Your task to perform on an android device: Search for panasonic triple a on amazon, select the first entry, and add it to the cart. Image 0: 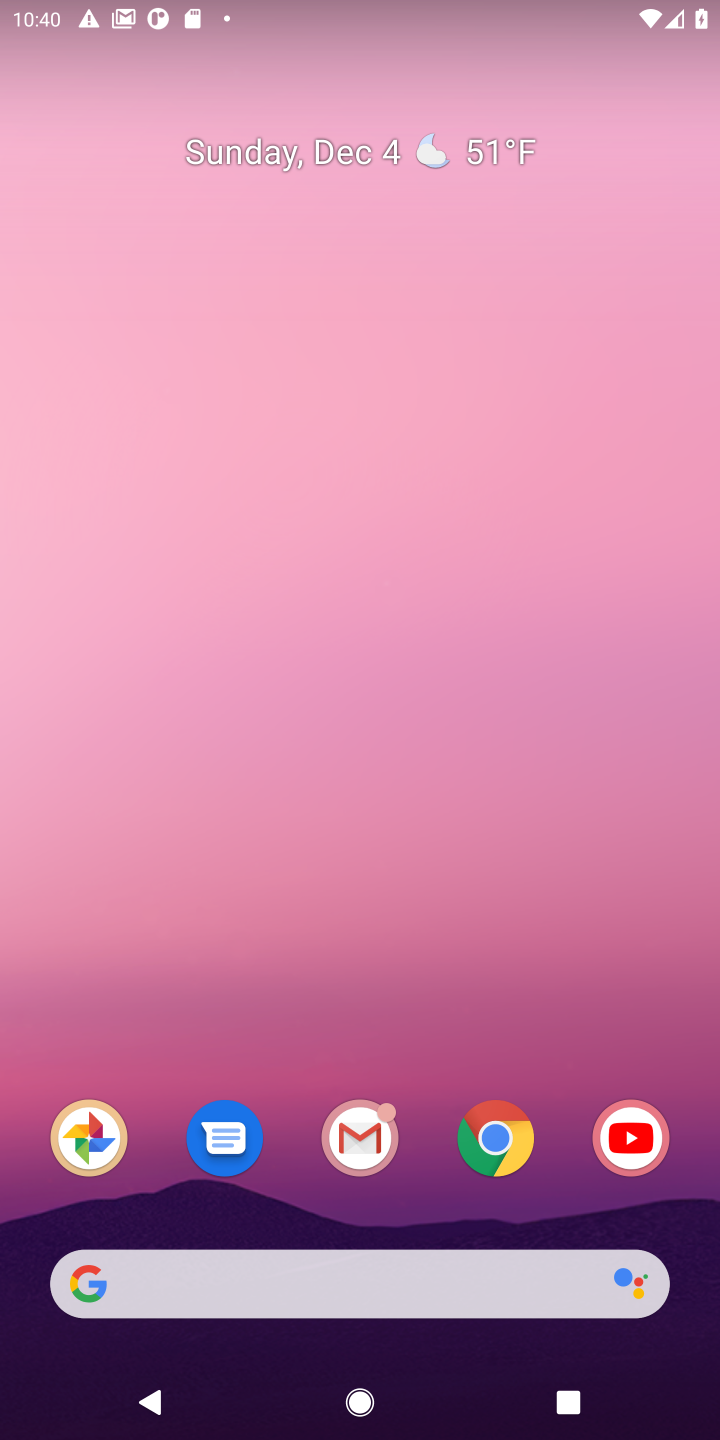
Step 0: click (482, 1127)
Your task to perform on an android device: Search for panasonic triple a on amazon, select the first entry, and add it to the cart. Image 1: 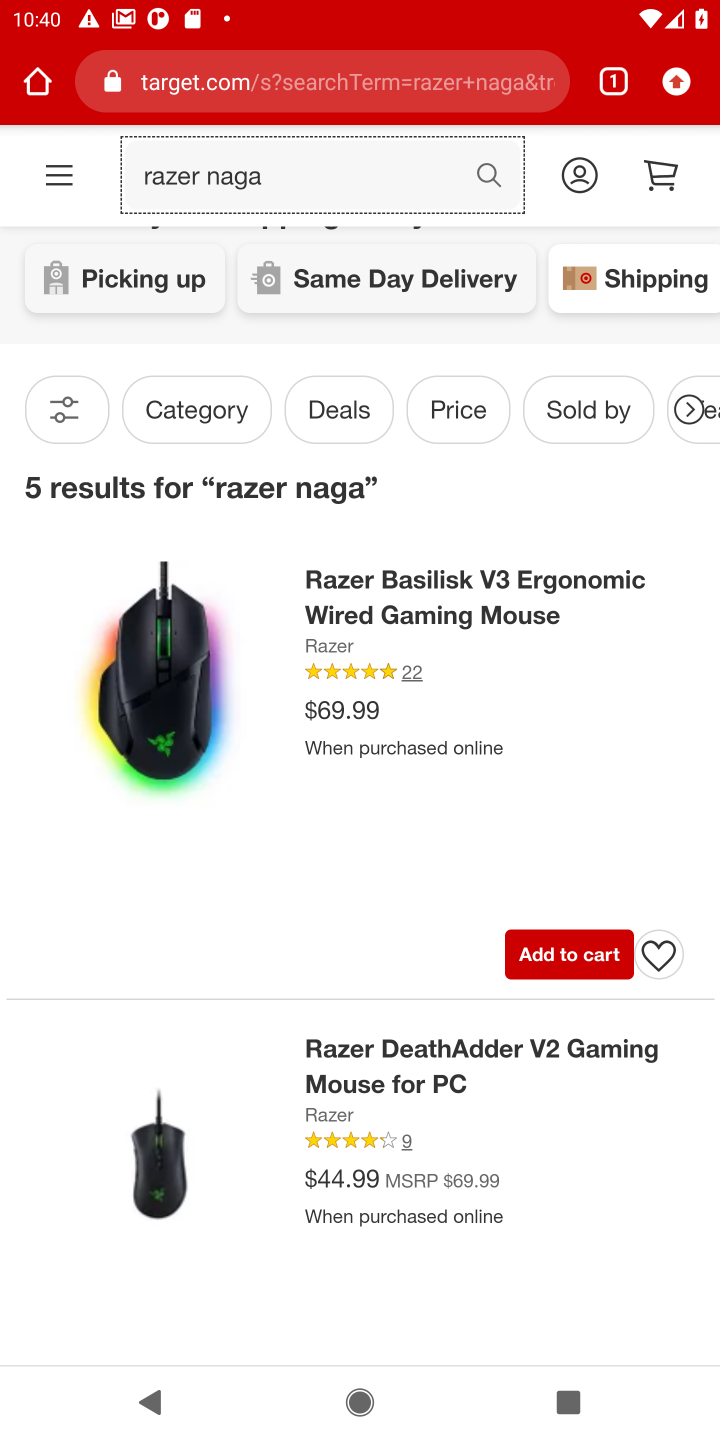
Step 1: click (377, 81)
Your task to perform on an android device: Search for panasonic triple a on amazon, select the first entry, and add it to the cart. Image 2: 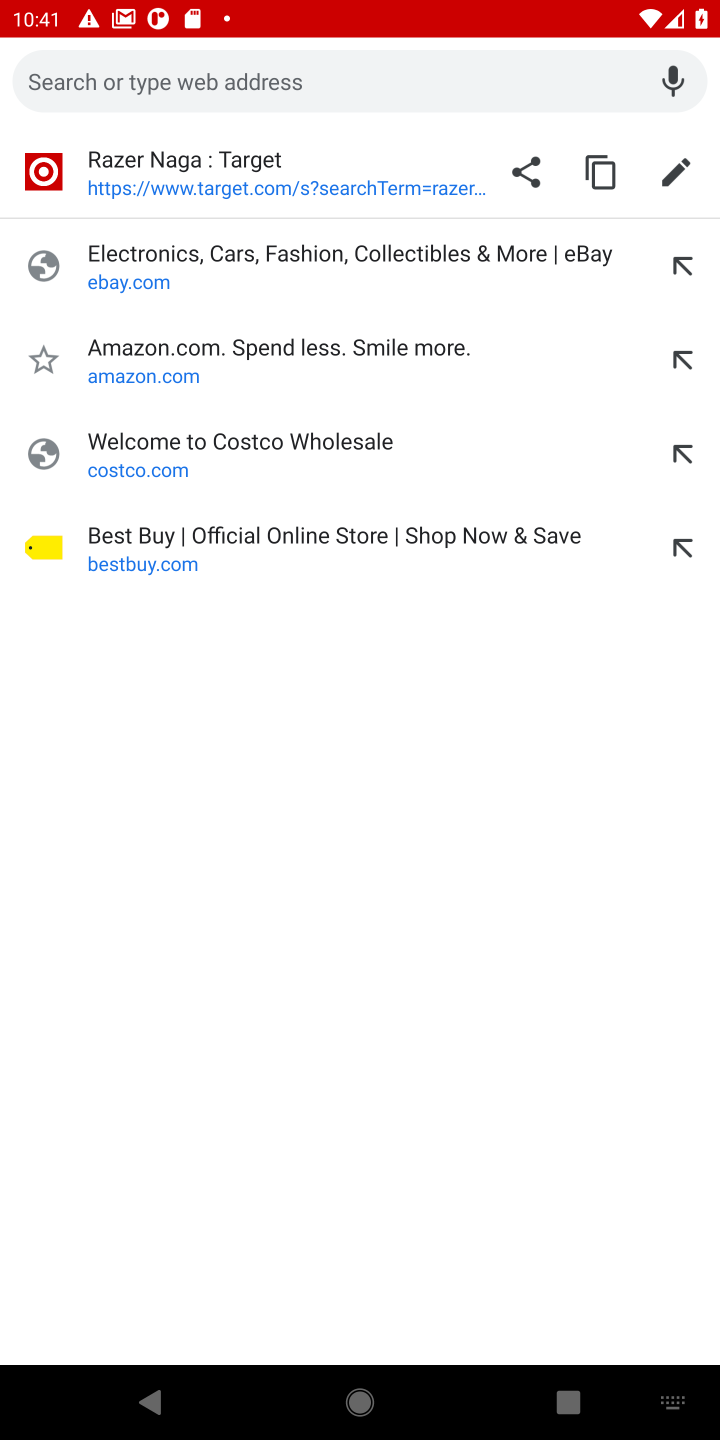
Step 2: click (188, 347)
Your task to perform on an android device: Search for panasonic triple a on amazon, select the first entry, and add it to the cart. Image 3: 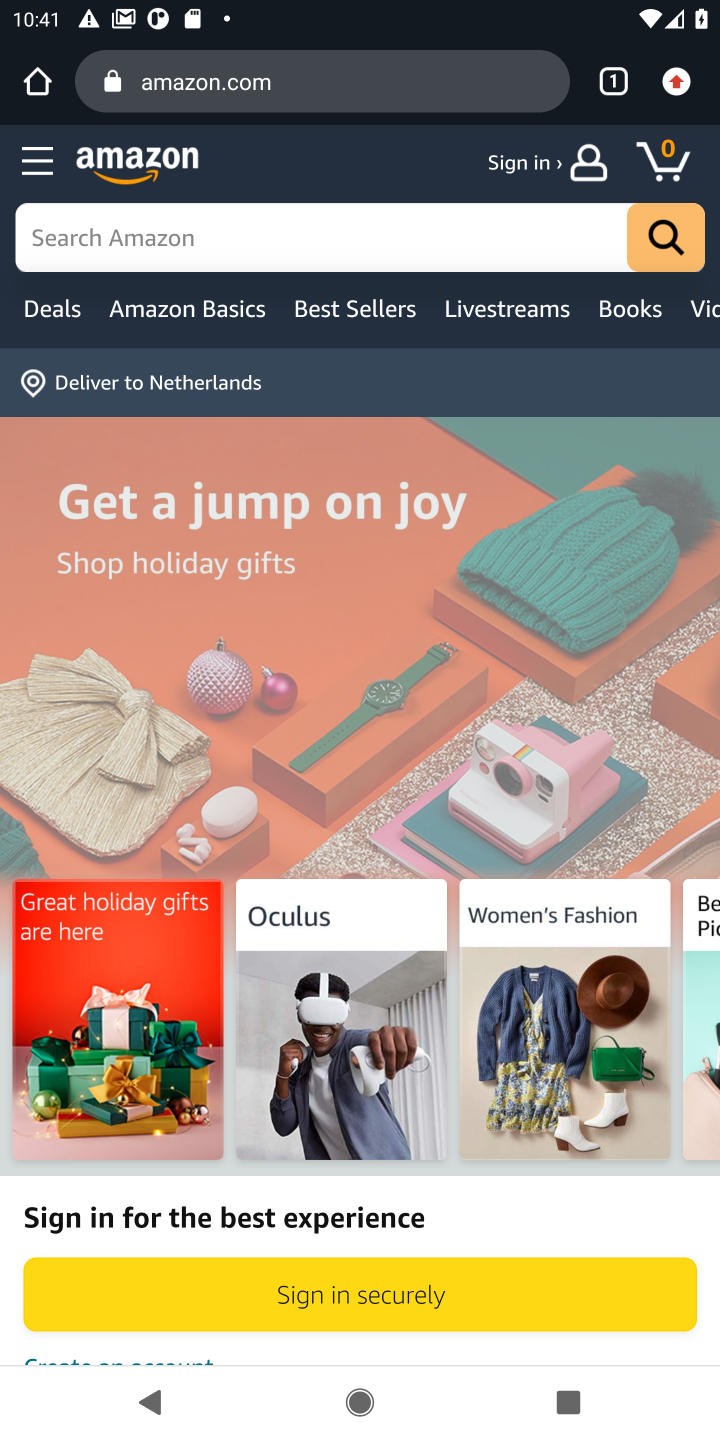
Step 3: click (409, 230)
Your task to perform on an android device: Search for panasonic triple a on amazon, select the first entry, and add it to the cart. Image 4: 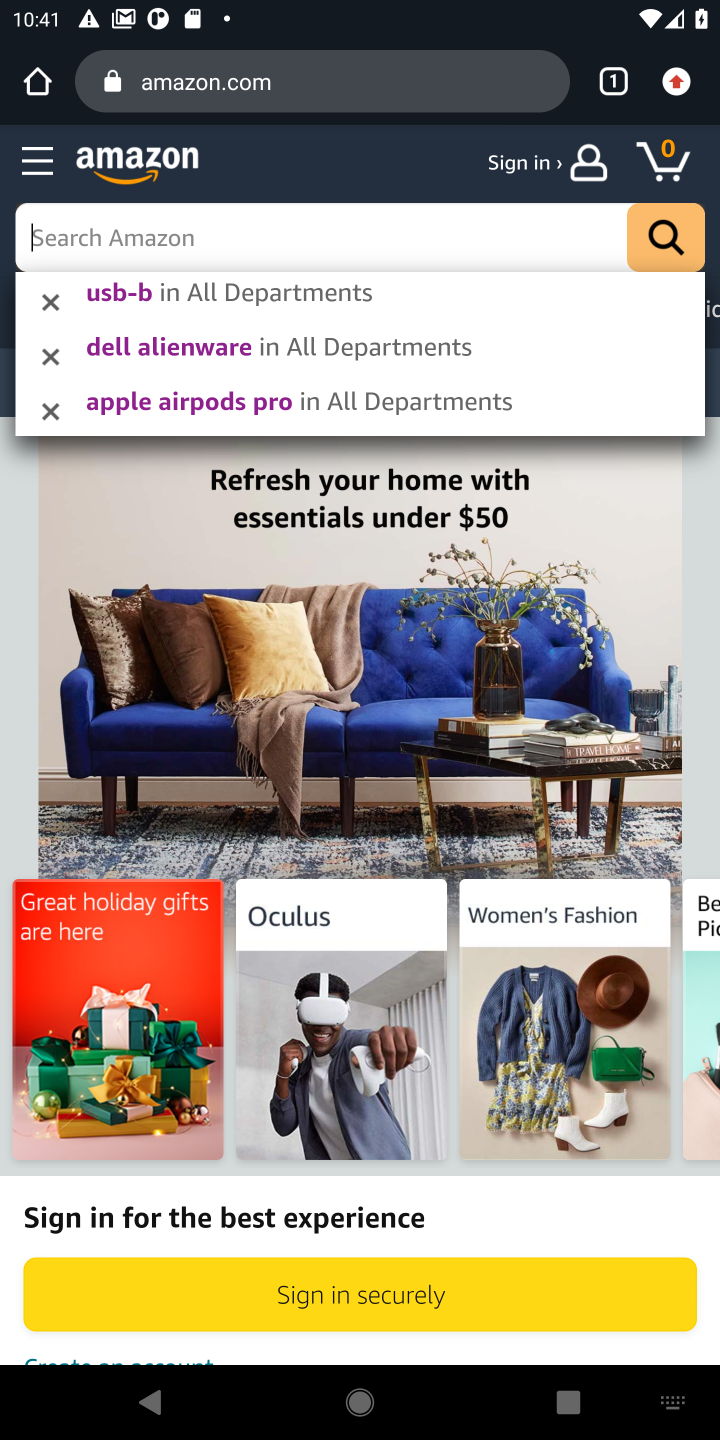
Step 4: type "panasonic triple a"
Your task to perform on an android device: Search for panasonic triple a on amazon, select the first entry, and add it to the cart. Image 5: 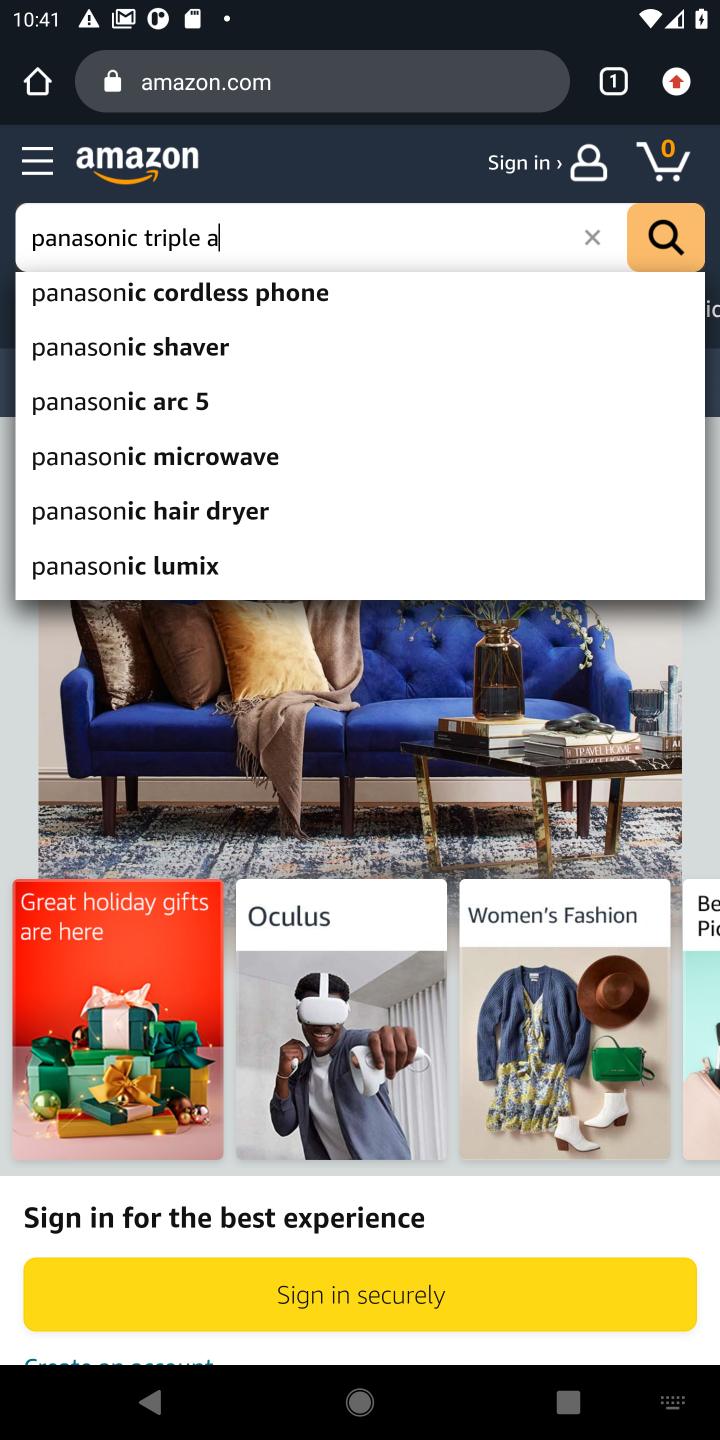
Step 5: press enter
Your task to perform on an android device: Search for panasonic triple a on amazon, select the first entry, and add it to the cart. Image 6: 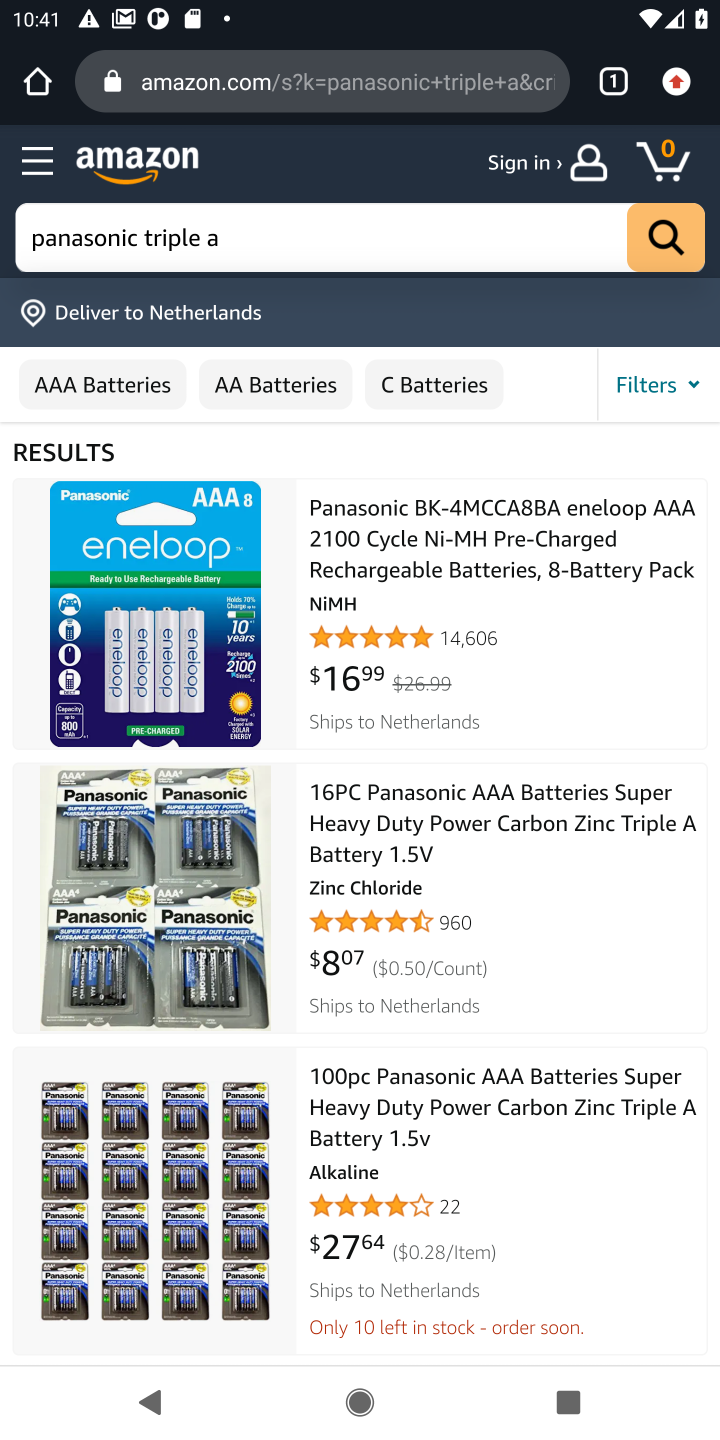
Step 6: click (172, 551)
Your task to perform on an android device: Search for panasonic triple a on amazon, select the first entry, and add it to the cart. Image 7: 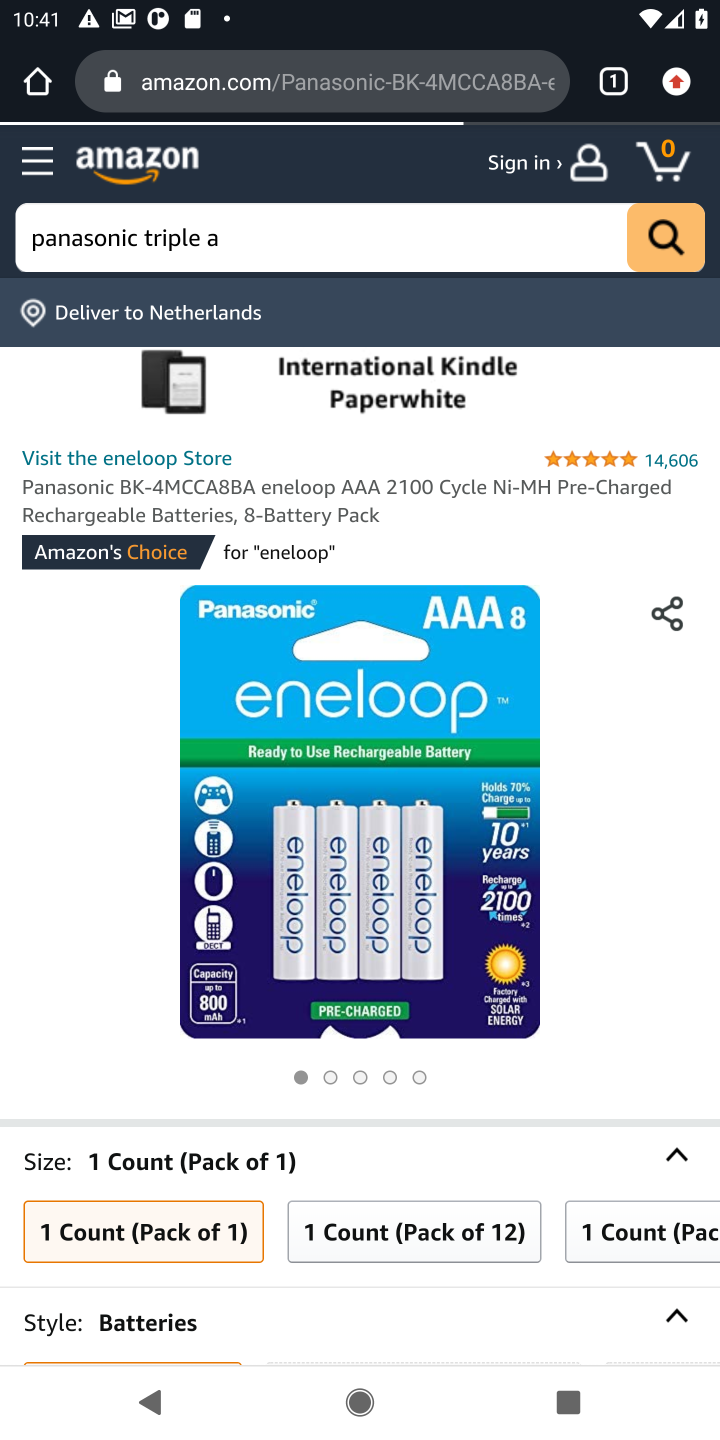
Step 7: drag from (582, 1089) to (547, 436)
Your task to perform on an android device: Search for panasonic triple a on amazon, select the first entry, and add it to the cart. Image 8: 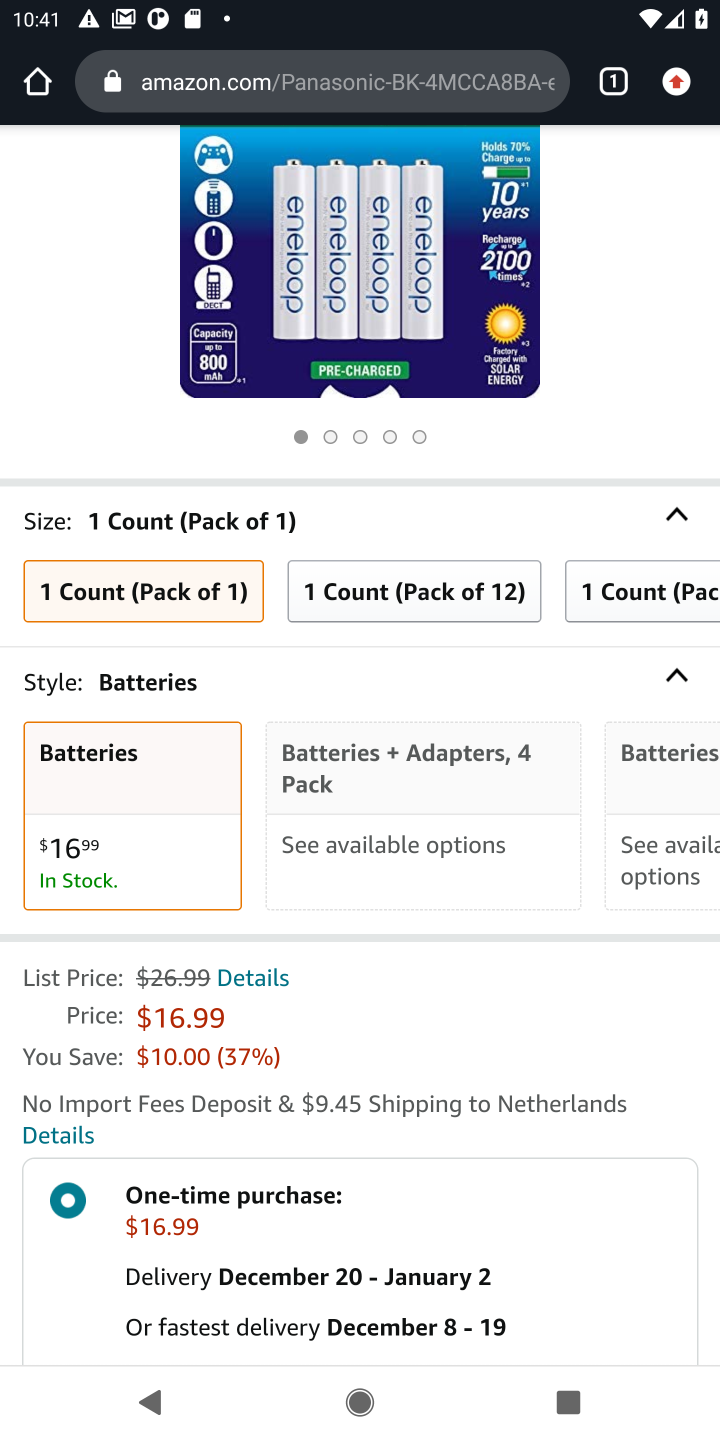
Step 8: drag from (562, 1070) to (558, 457)
Your task to perform on an android device: Search for panasonic triple a on amazon, select the first entry, and add it to the cart. Image 9: 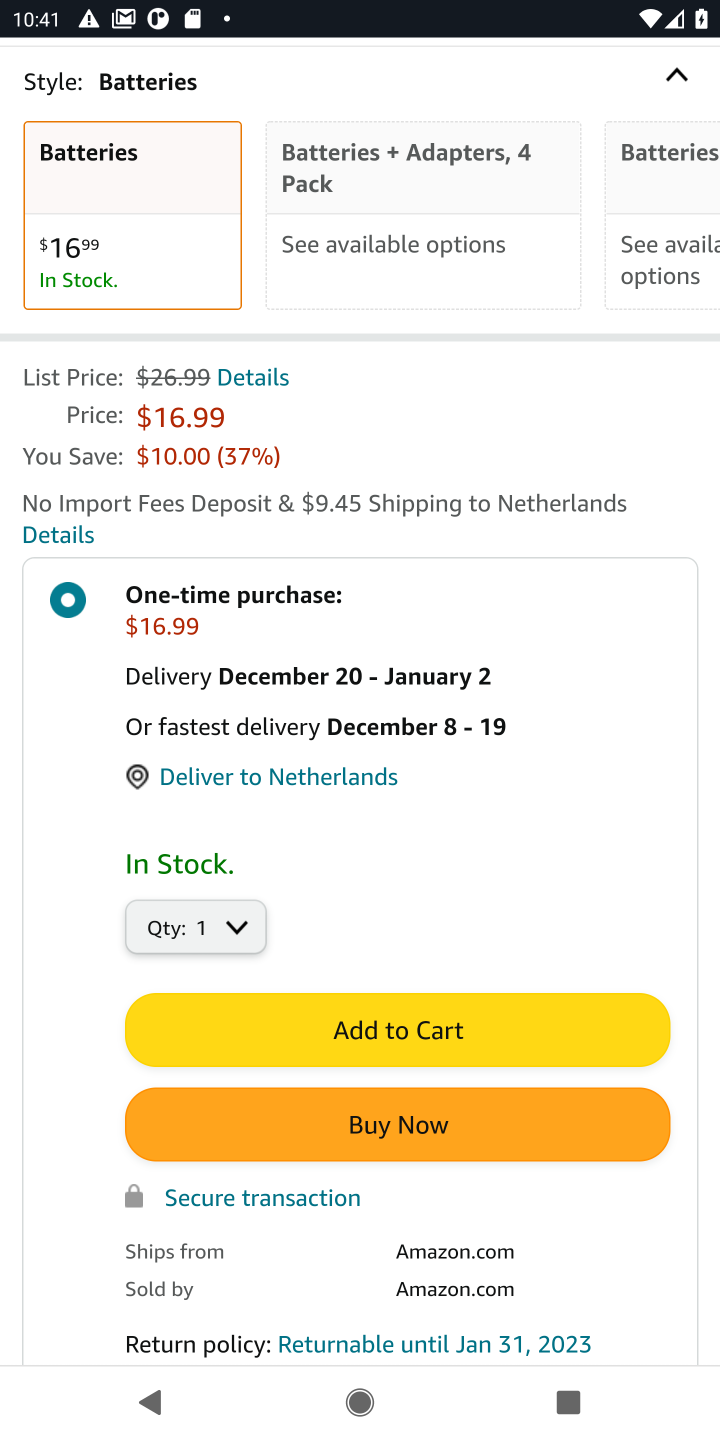
Step 9: click (417, 1025)
Your task to perform on an android device: Search for panasonic triple a on amazon, select the first entry, and add it to the cart. Image 10: 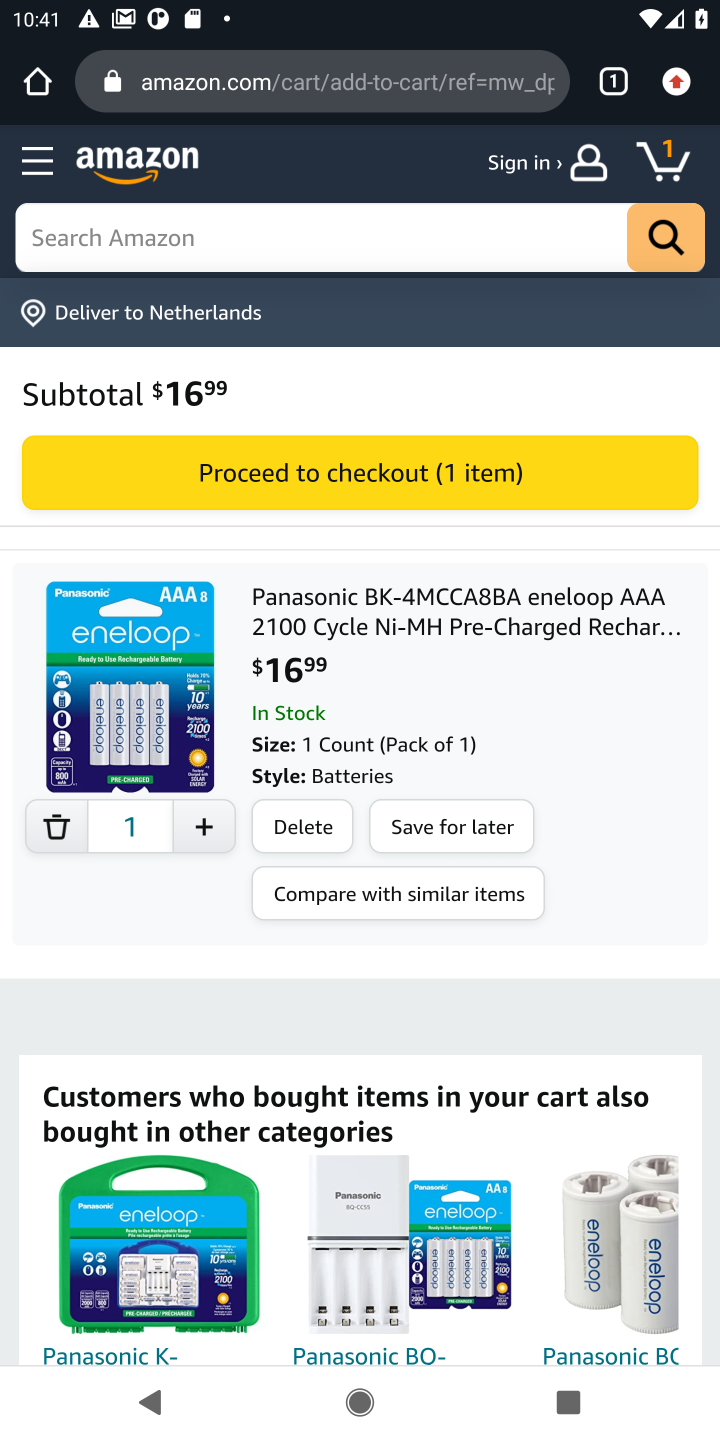
Step 10: task complete